Your task to perform on an android device: check storage Image 0: 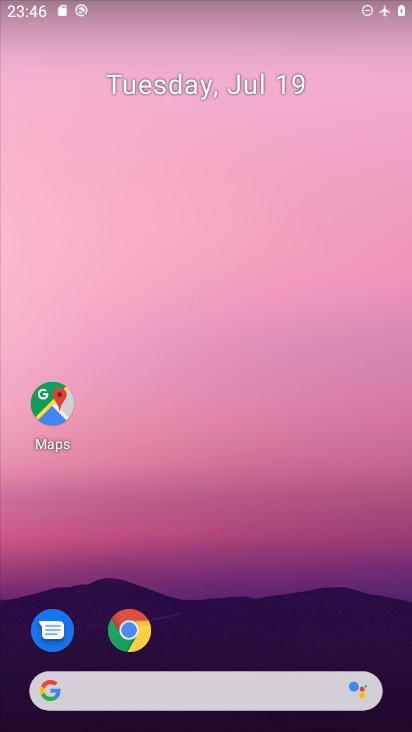
Step 0: drag from (225, 633) to (226, 205)
Your task to perform on an android device: check storage Image 1: 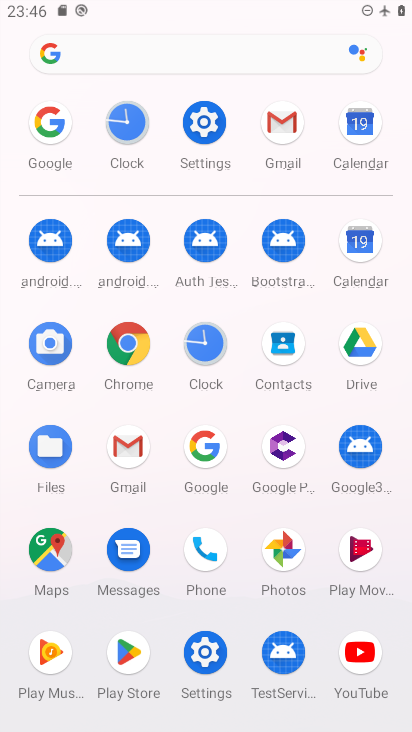
Step 1: click (206, 143)
Your task to perform on an android device: check storage Image 2: 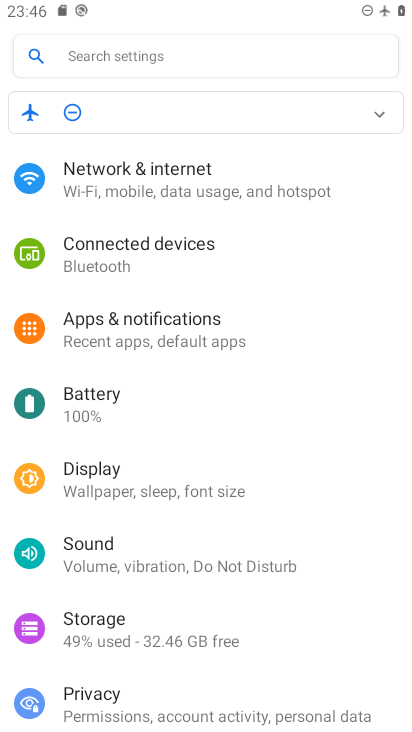
Step 2: click (138, 617)
Your task to perform on an android device: check storage Image 3: 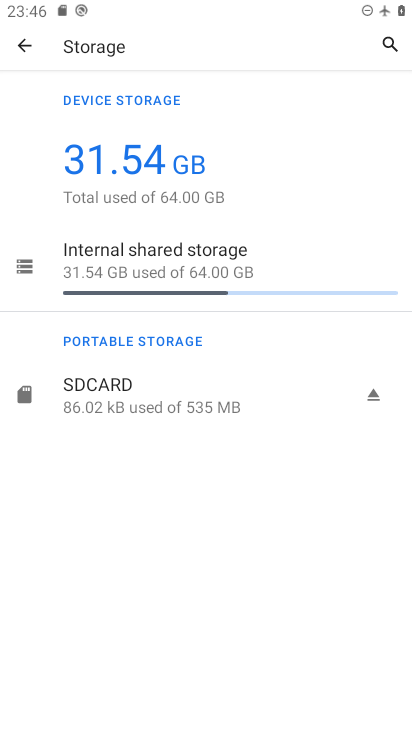
Step 3: click (168, 278)
Your task to perform on an android device: check storage Image 4: 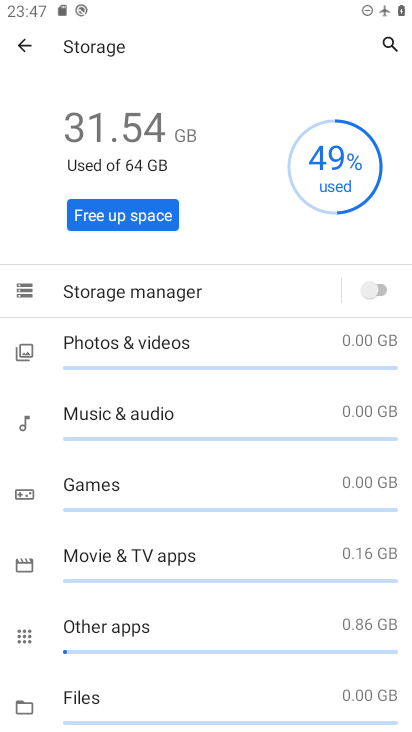
Step 4: task complete